Your task to perform on an android device: turn on location history Image 0: 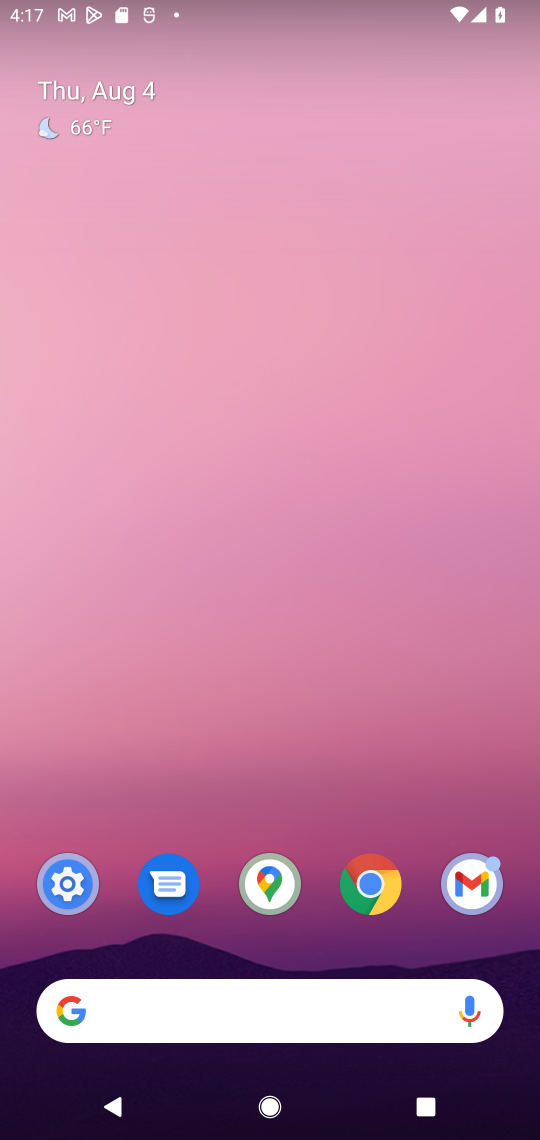
Step 0: drag from (281, 946) to (226, 31)
Your task to perform on an android device: turn on location history Image 1: 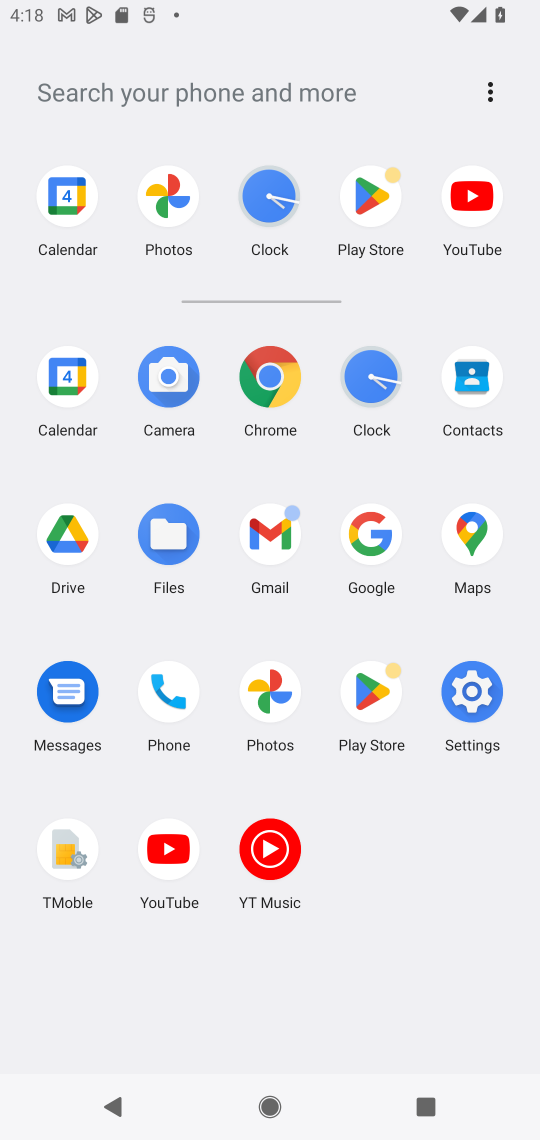
Step 1: click (445, 679)
Your task to perform on an android device: turn on location history Image 2: 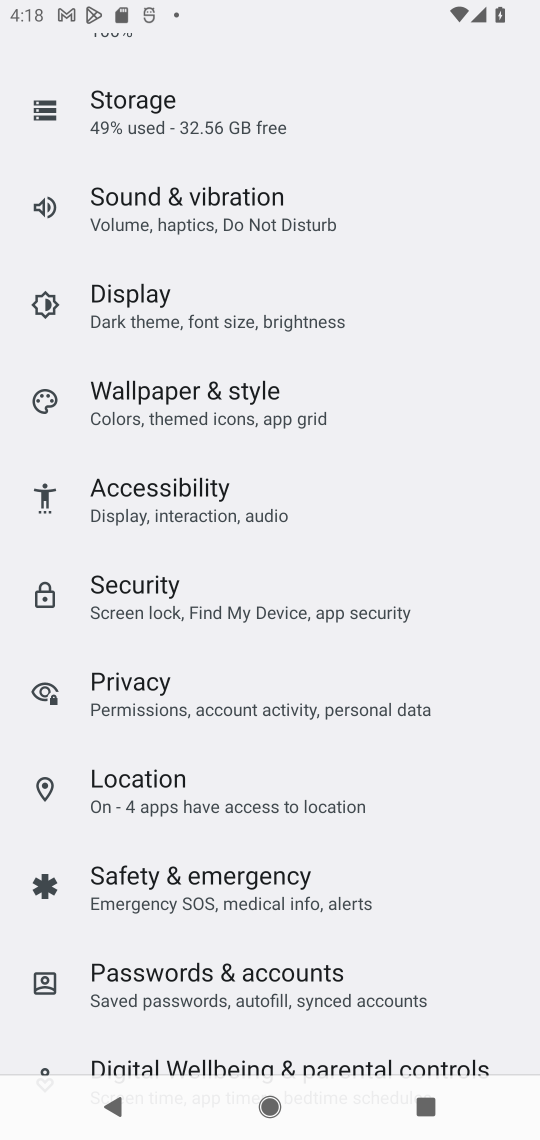
Step 2: click (318, 807)
Your task to perform on an android device: turn on location history Image 3: 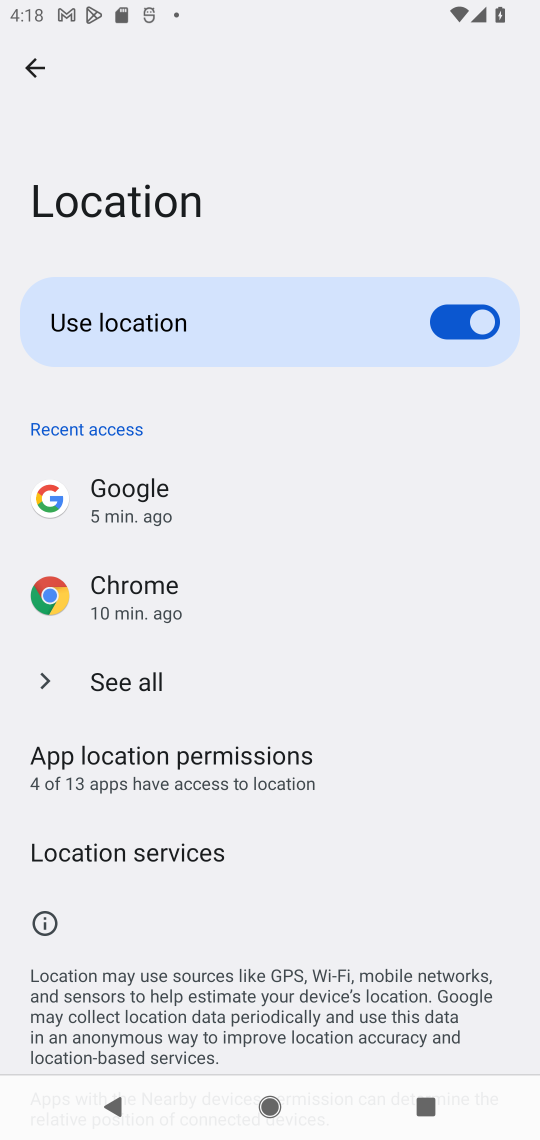
Step 3: task complete